Your task to perform on an android device: move a message to another label in the gmail app Image 0: 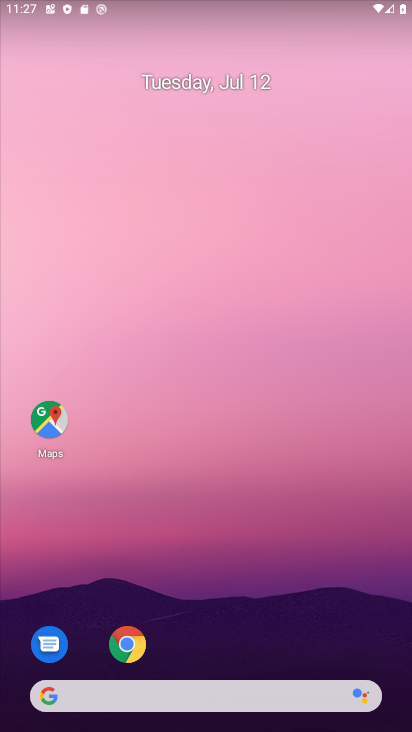
Step 0: drag from (174, 728) to (276, 142)
Your task to perform on an android device: move a message to another label in the gmail app Image 1: 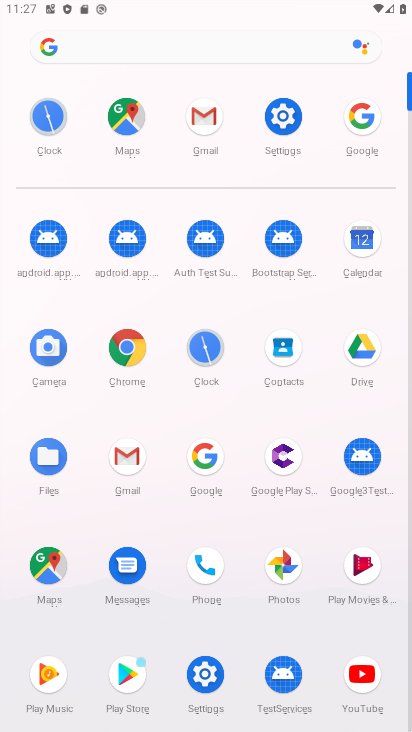
Step 1: click (205, 112)
Your task to perform on an android device: move a message to another label in the gmail app Image 2: 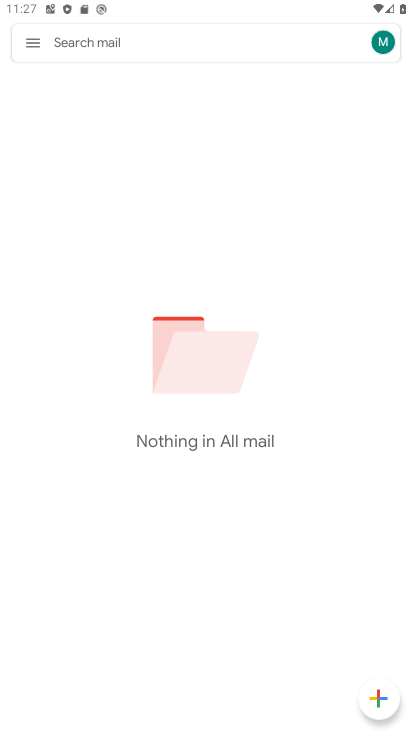
Step 2: task complete